Your task to perform on an android device: Go to network settings Image 0: 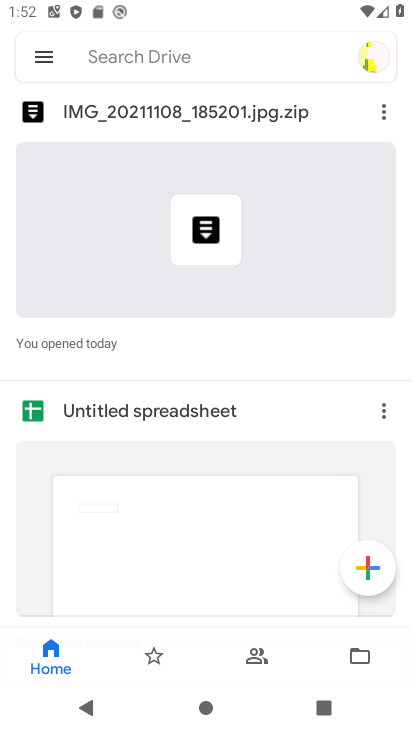
Step 0: press home button
Your task to perform on an android device: Go to network settings Image 1: 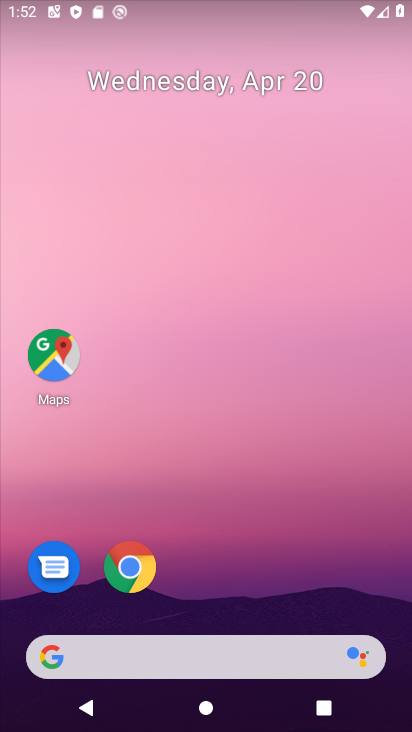
Step 1: drag from (211, 608) to (196, 149)
Your task to perform on an android device: Go to network settings Image 2: 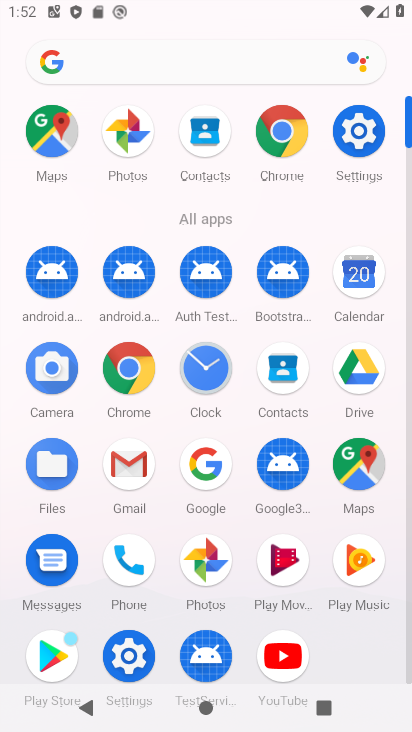
Step 2: click (370, 124)
Your task to perform on an android device: Go to network settings Image 3: 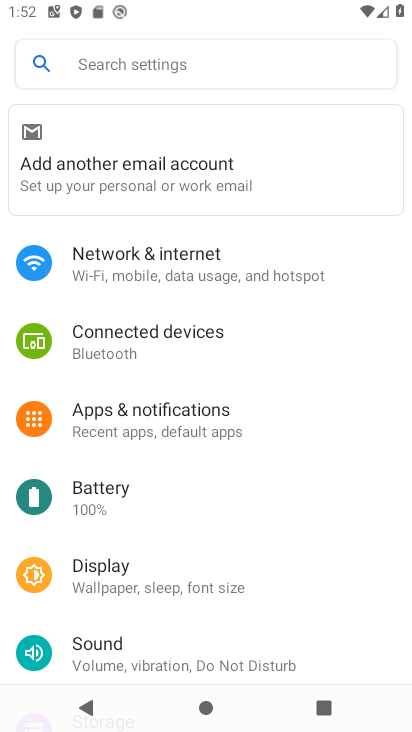
Step 3: click (162, 280)
Your task to perform on an android device: Go to network settings Image 4: 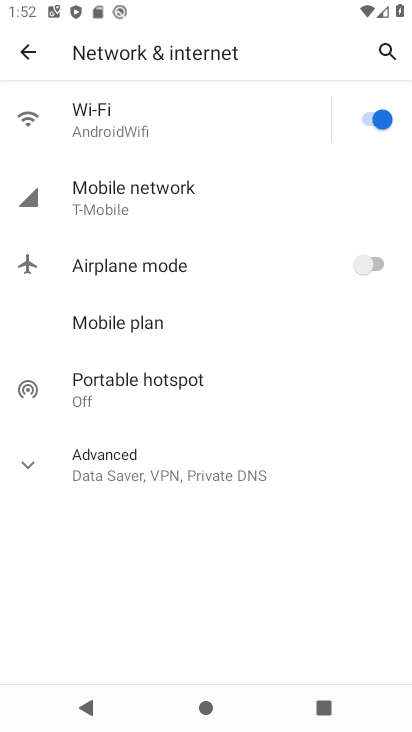
Step 4: task complete